Your task to perform on an android device: turn on wifi Image 0: 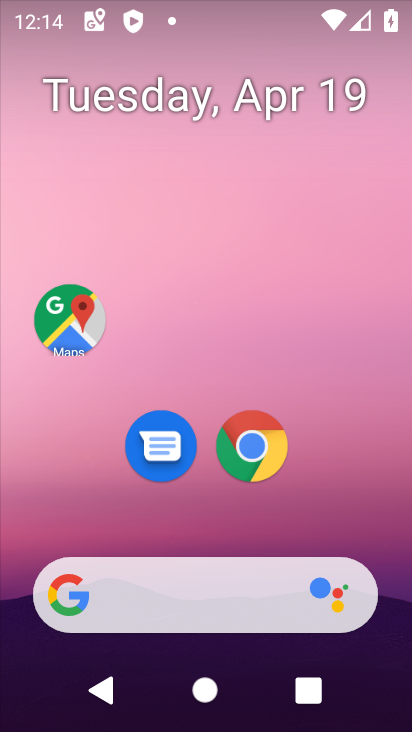
Step 0: drag from (331, 494) to (330, 102)
Your task to perform on an android device: turn on wifi Image 1: 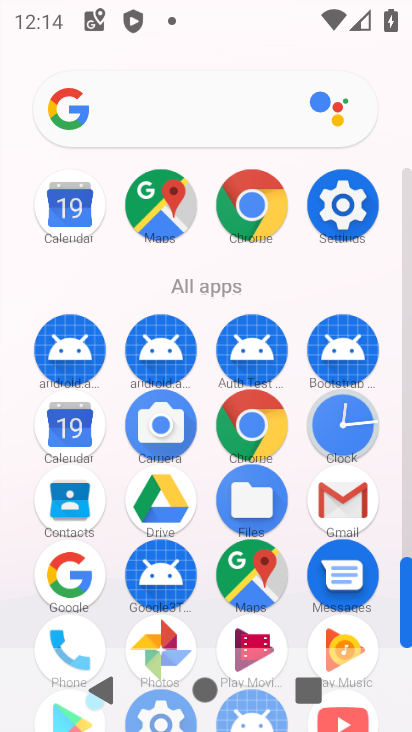
Step 1: click (336, 188)
Your task to perform on an android device: turn on wifi Image 2: 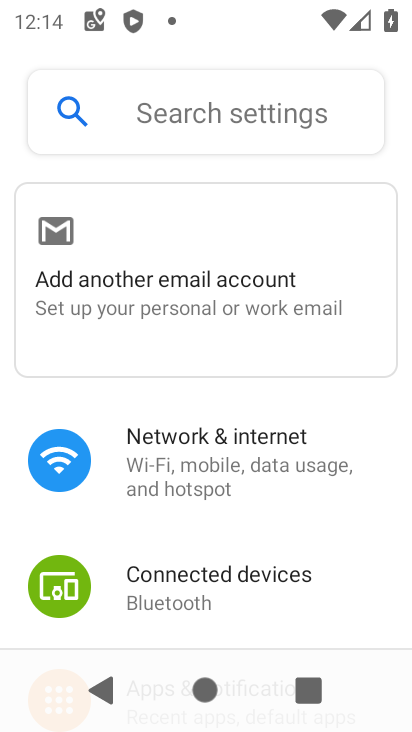
Step 2: click (268, 459)
Your task to perform on an android device: turn on wifi Image 3: 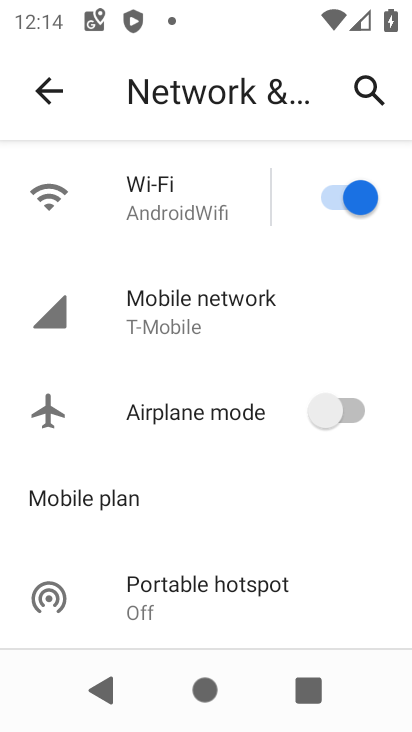
Step 3: task complete